Your task to perform on an android device: toggle notifications settings in the gmail app Image 0: 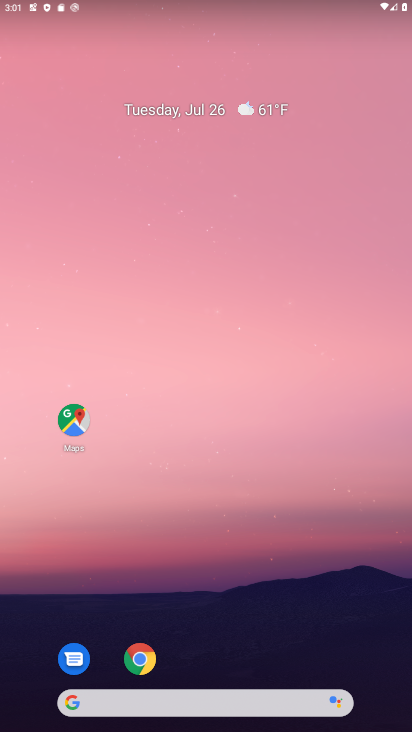
Step 0: drag from (219, 623) to (185, 123)
Your task to perform on an android device: toggle notifications settings in the gmail app Image 1: 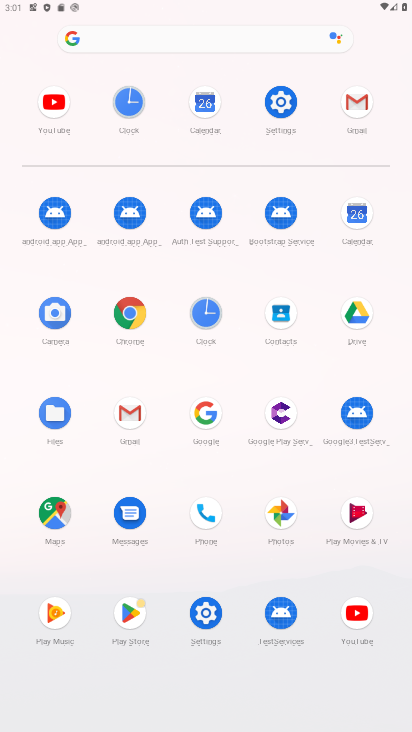
Step 1: click (353, 102)
Your task to perform on an android device: toggle notifications settings in the gmail app Image 2: 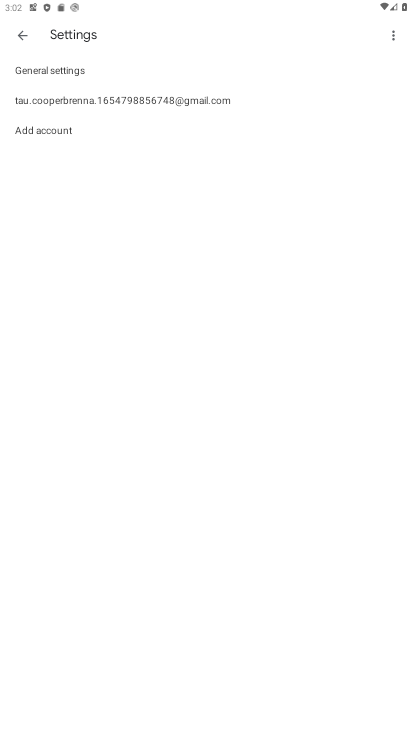
Step 2: click (180, 94)
Your task to perform on an android device: toggle notifications settings in the gmail app Image 3: 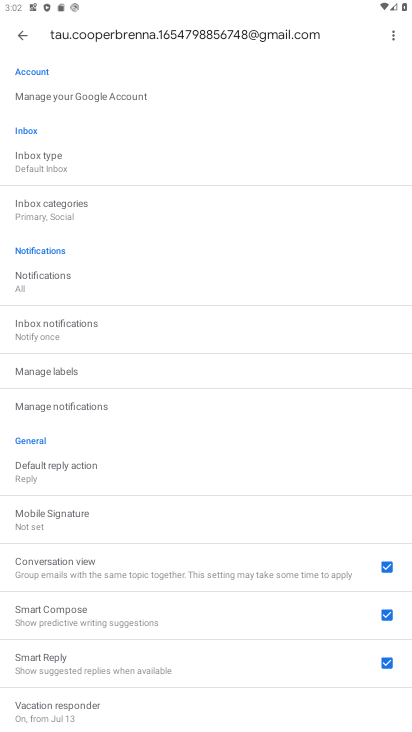
Step 3: click (82, 406)
Your task to perform on an android device: toggle notifications settings in the gmail app Image 4: 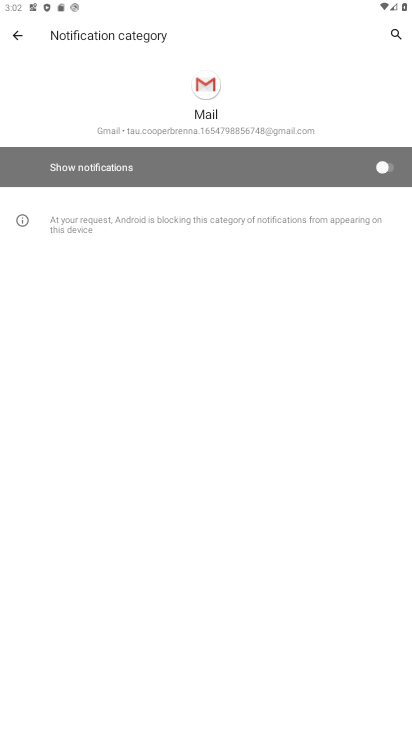
Step 4: click (392, 173)
Your task to perform on an android device: toggle notifications settings in the gmail app Image 5: 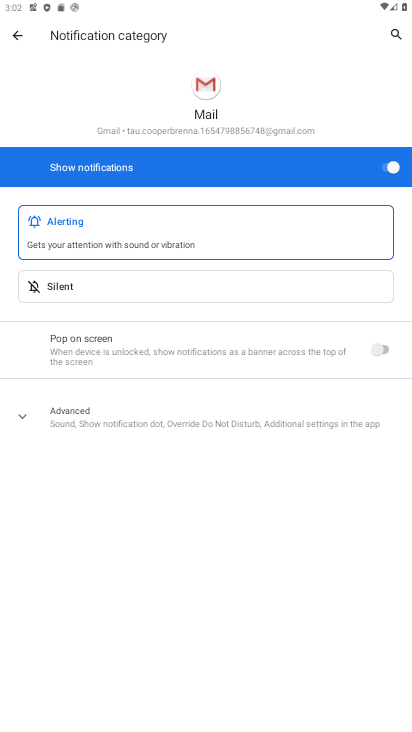
Step 5: task complete